Your task to perform on an android device: check google app version Image 0: 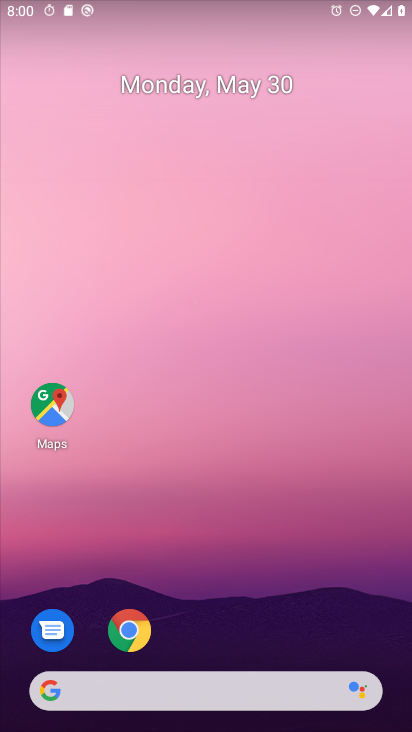
Step 0: drag from (319, 602) to (272, 28)
Your task to perform on an android device: check google app version Image 1: 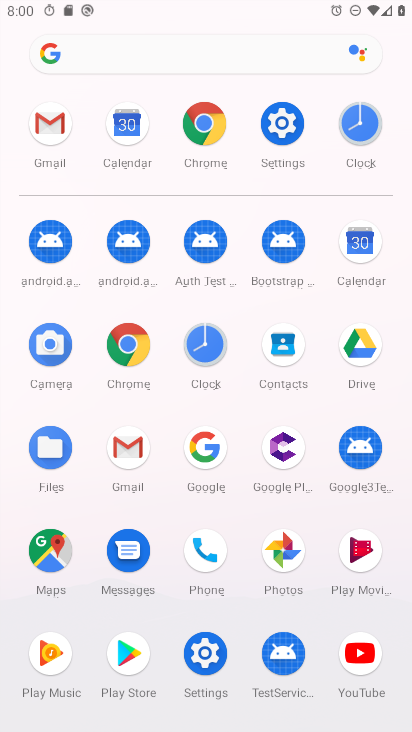
Step 1: click (215, 465)
Your task to perform on an android device: check google app version Image 2: 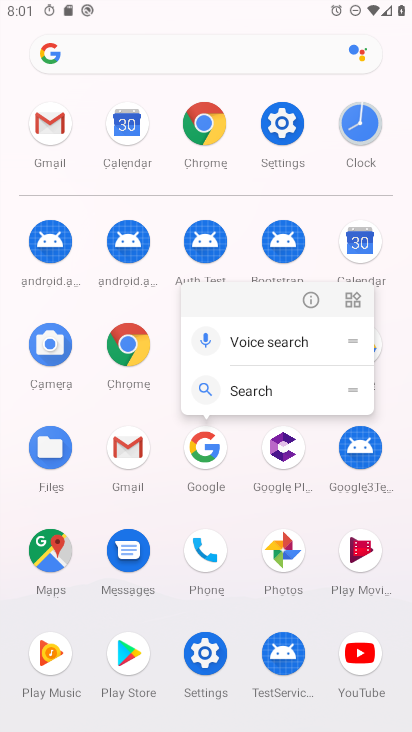
Step 2: click (309, 308)
Your task to perform on an android device: check google app version Image 3: 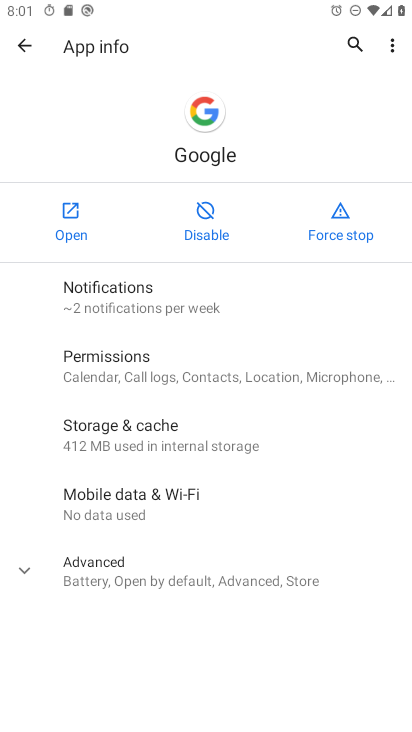
Step 3: drag from (197, 657) to (195, 273)
Your task to perform on an android device: check google app version Image 4: 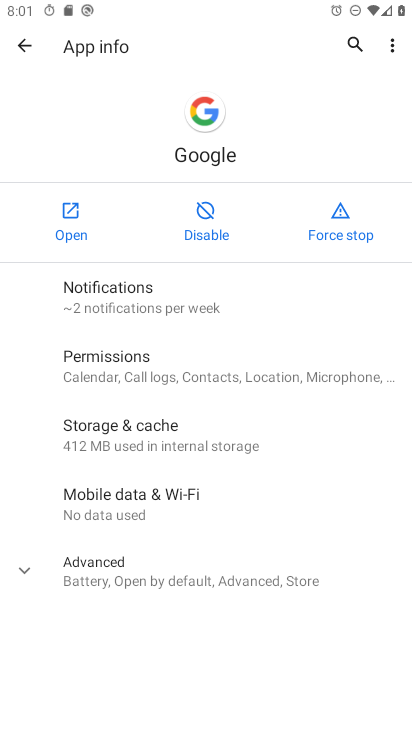
Step 4: click (56, 573)
Your task to perform on an android device: check google app version Image 5: 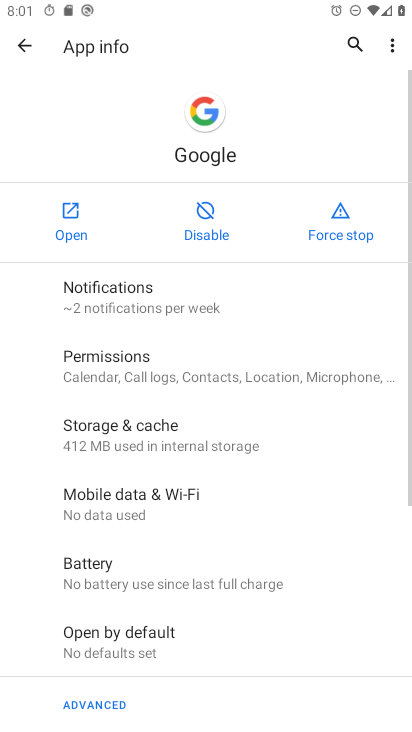
Step 5: task complete